Your task to perform on an android device: toggle notifications settings in the gmail app Image 0: 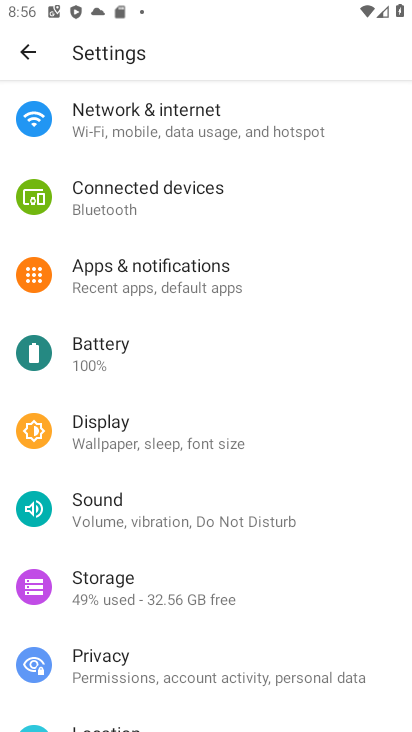
Step 0: press home button
Your task to perform on an android device: toggle notifications settings in the gmail app Image 1: 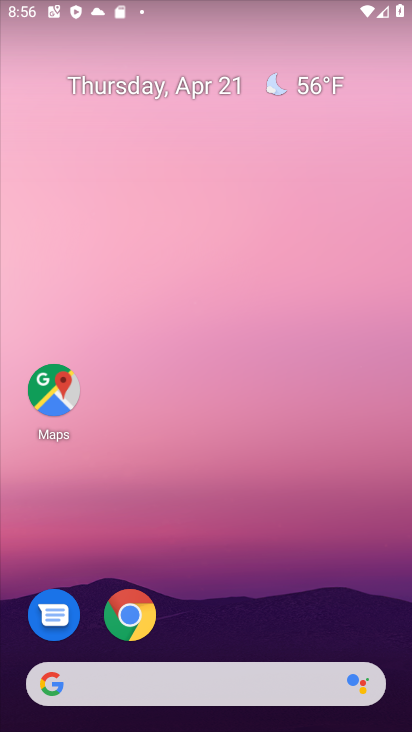
Step 1: drag from (217, 550) to (184, 54)
Your task to perform on an android device: toggle notifications settings in the gmail app Image 2: 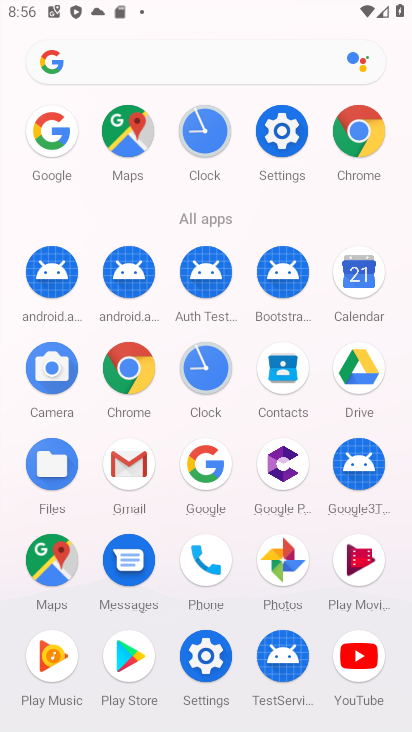
Step 2: click (130, 464)
Your task to perform on an android device: toggle notifications settings in the gmail app Image 3: 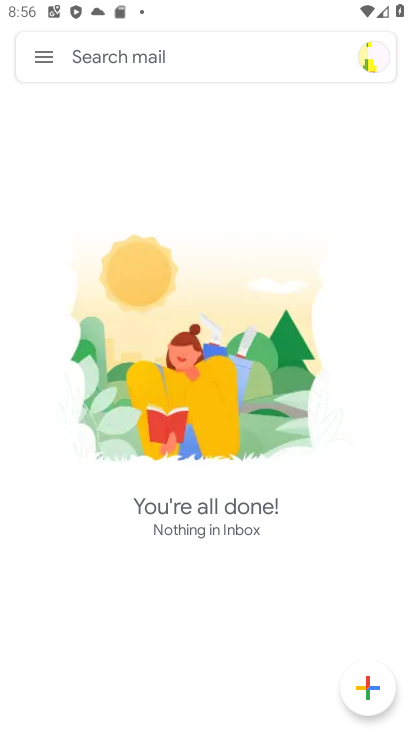
Step 3: click (40, 57)
Your task to perform on an android device: toggle notifications settings in the gmail app Image 4: 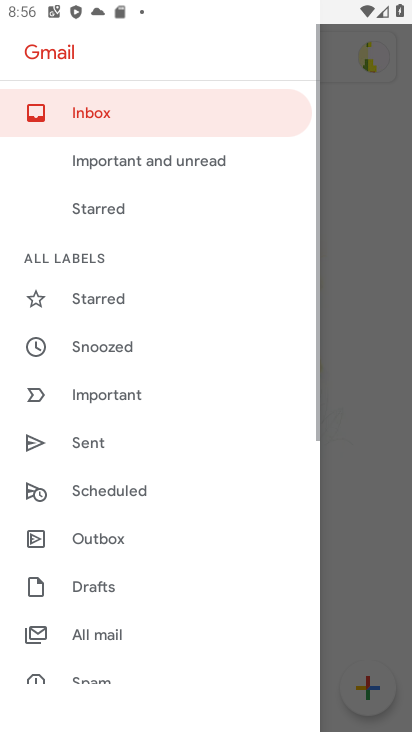
Step 4: drag from (159, 616) to (146, 195)
Your task to perform on an android device: toggle notifications settings in the gmail app Image 5: 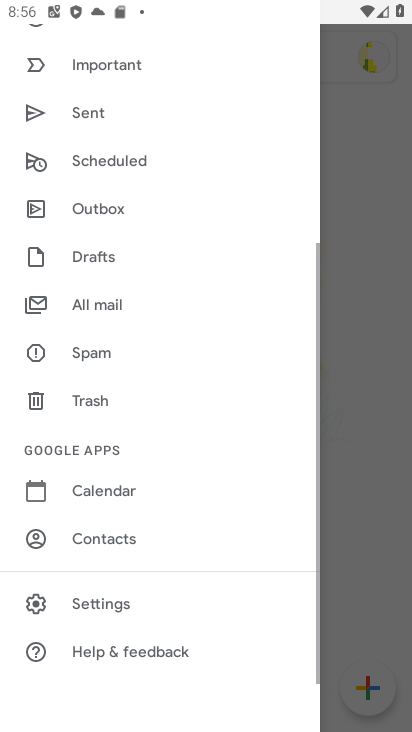
Step 5: click (121, 597)
Your task to perform on an android device: toggle notifications settings in the gmail app Image 6: 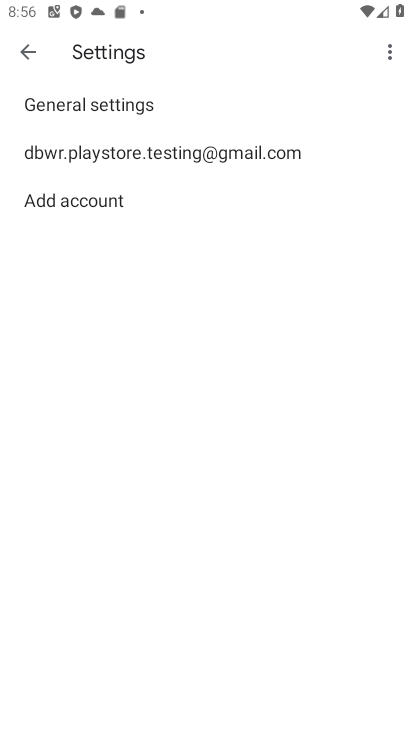
Step 6: click (147, 153)
Your task to perform on an android device: toggle notifications settings in the gmail app Image 7: 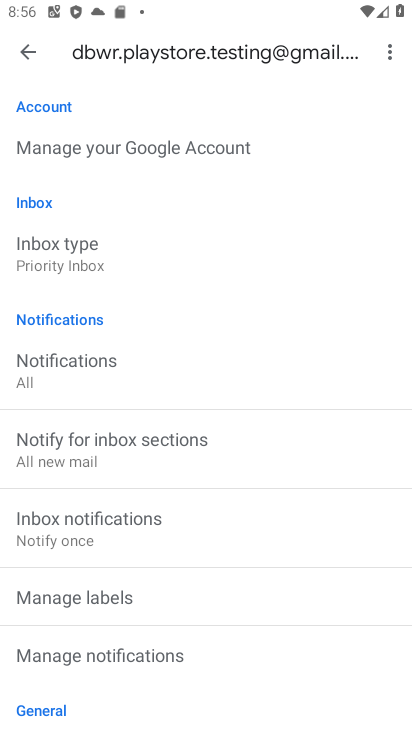
Step 7: click (86, 379)
Your task to perform on an android device: toggle notifications settings in the gmail app Image 8: 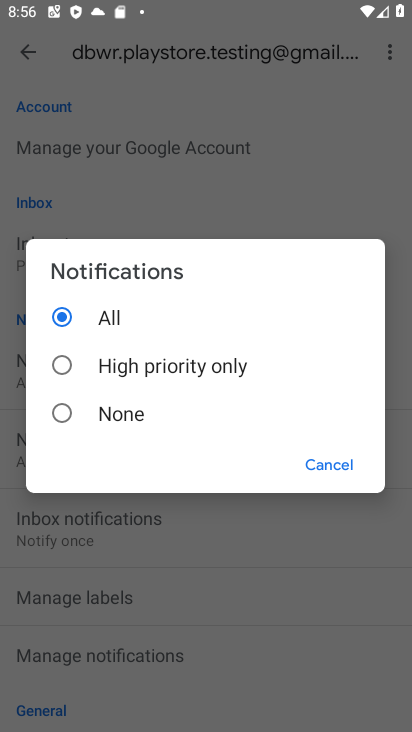
Step 8: click (62, 409)
Your task to perform on an android device: toggle notifications settings in the gmail app Image 9: 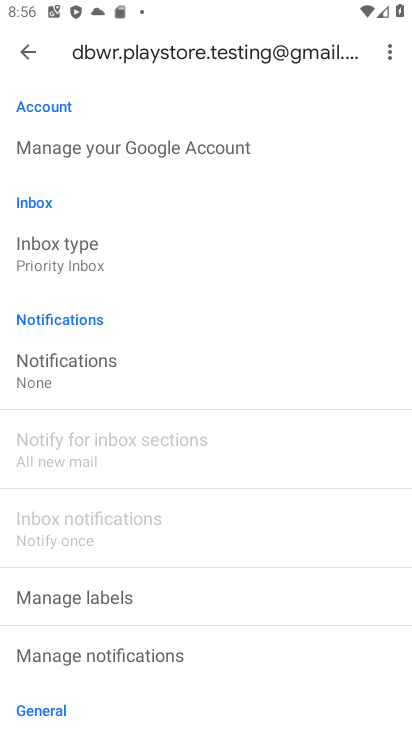
Step 9: task complete